Your task to perform on an android device: Open Android settings Image 0: 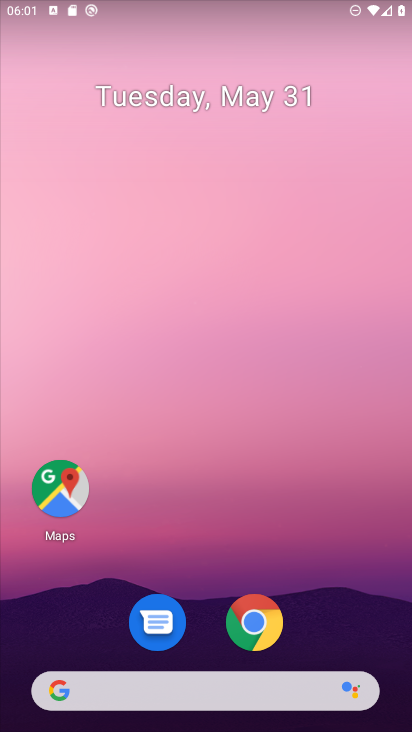
Step 0: drag from (270, 688) to (315, 16)
Your task to perform on an android device: Open Android settings Image 1: 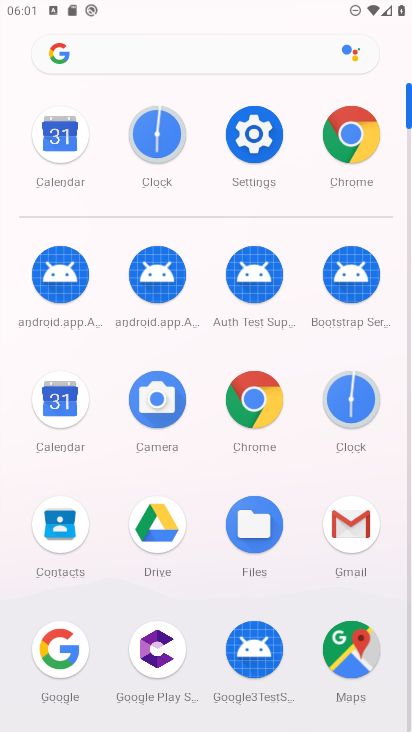
Step 1: click (276, 129)
Your task to perform on an android device: Open Android settings Image 2: 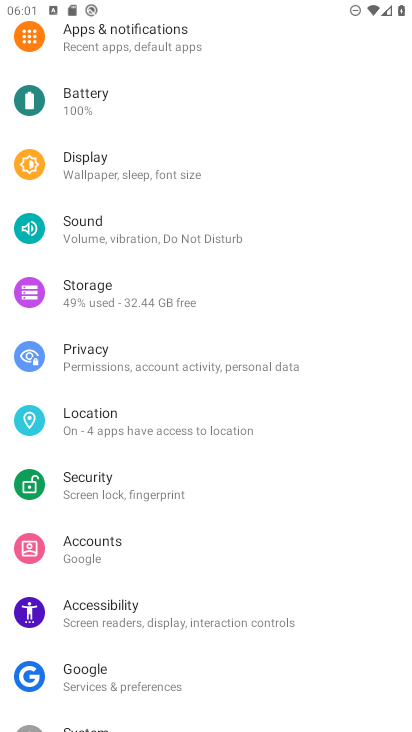
Step 2: drag from (217, 691) to (228, 34)
Your task to perform on an android device: Open Android settings Image 3: 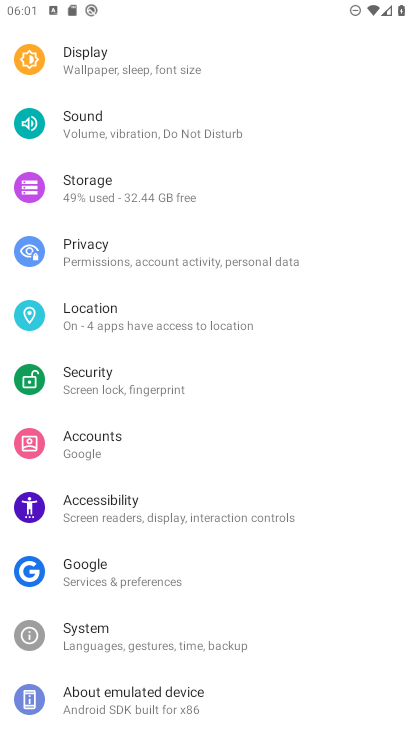
Step 3: click (158, 710)
Your task to perform on an android device: Open Android settings Image 4: 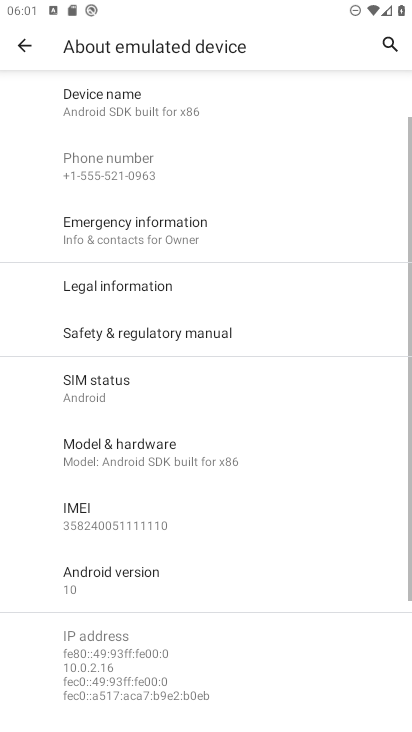
Step 4: task complete